Your task to perform on an android device: turn vacation reply on in the gmail app Image 0: 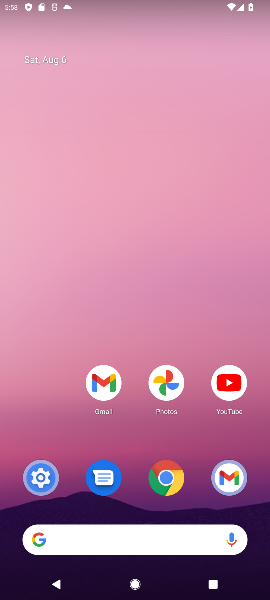
Step 0: press home button
Your task to perform on an android device: turn vacation reply on in the gmail app Image 1: 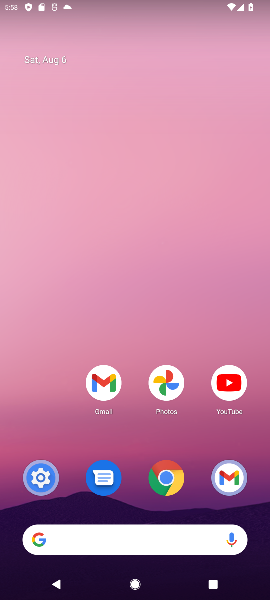
Step 1: click (98, 379)
Your task to perform on an android device: turn vacation reply on in the gmail app Image 2: 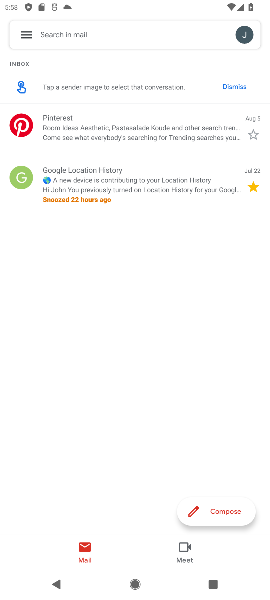
Step 2: click (25, 34)
Your task to perform on an android device: turn vacation reply on in the gmail app Image 3: 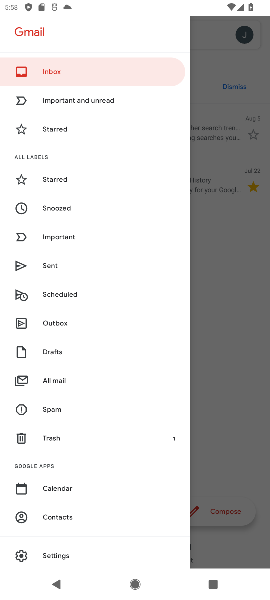
Step 3: click (59, 554)
Your task to perform on an android device: turn vacation reply on in the gmail app Image 4: 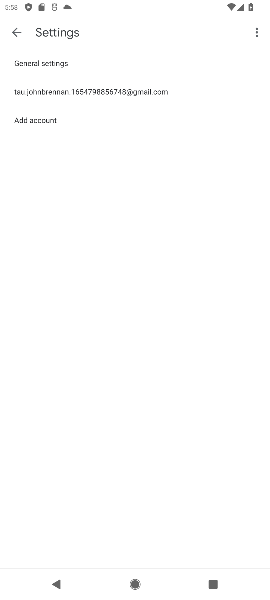
Step 4: click (102, 86)
Your task to perform on an android device: turn vacation reply on in the gmail app Image 5: 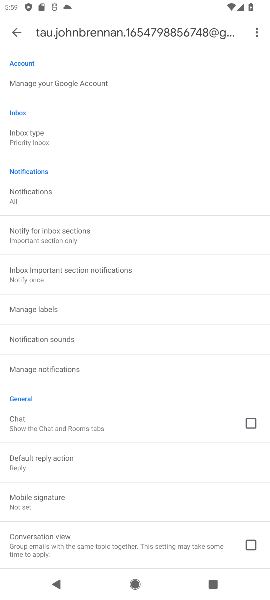
Step 5: drag from (169, 500) to (205, 209)
Your task to perform on an android device: turn vacation reply on in the gmail app Image 6: 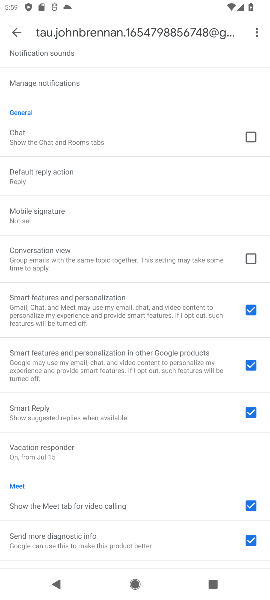
Step 6: click (34, 447)
Your task to perform on an android device: turn vacation reply on in the gmail app Image 7: 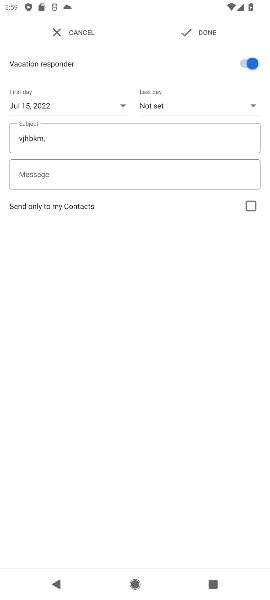
Step 7: task complete